Your task to perform on an android device: Open wifi settings Image 0: 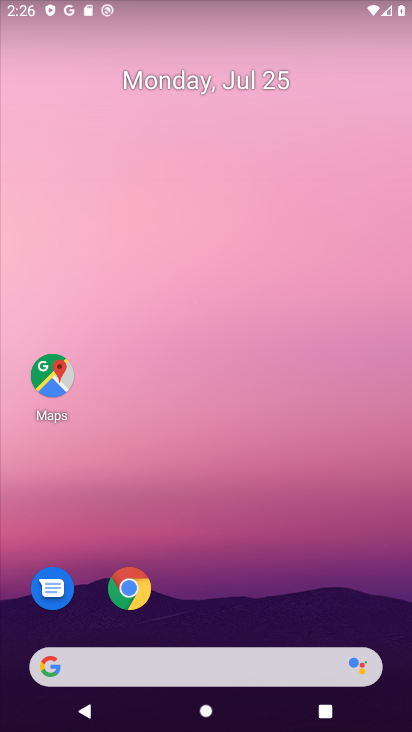
Step 0: press home button
Your task to perform on an android device: Open wifi settings Image 1: 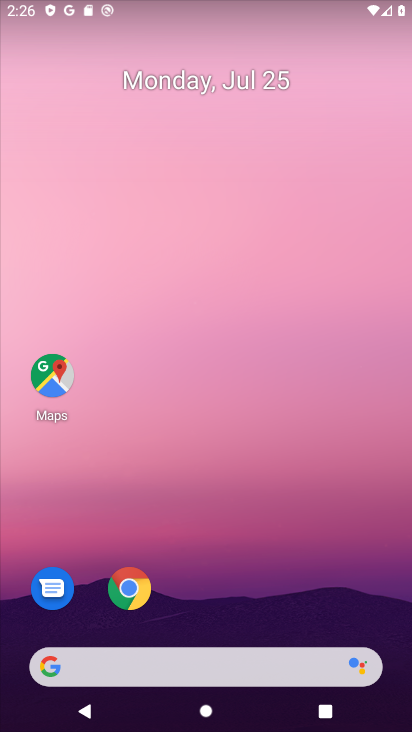
Step 1: drag from (207, 624) to (207, 21)
Your task to perform on an android device: Open wifi settings Image 2: 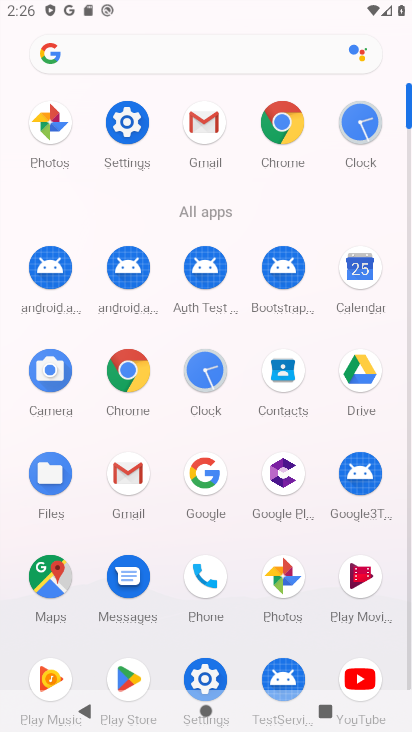
Step 2: click (123, 113)
Your task to perform on an android device: Open wifi settings Image 3: 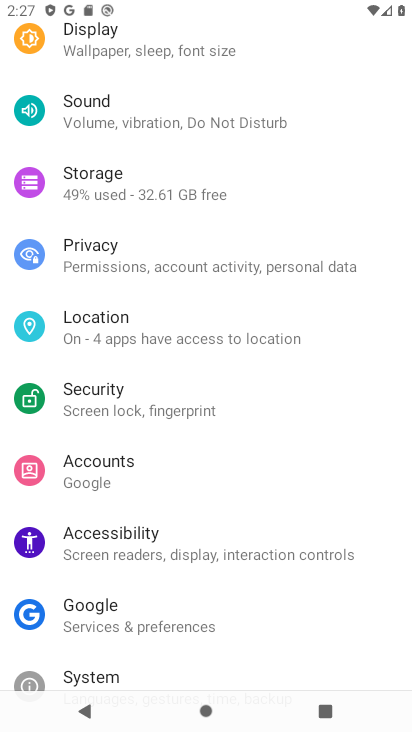
Step 3: drag from (121, 84) to (154, 675)
Your task to perform on an android device: Open wifi settings Image 4: 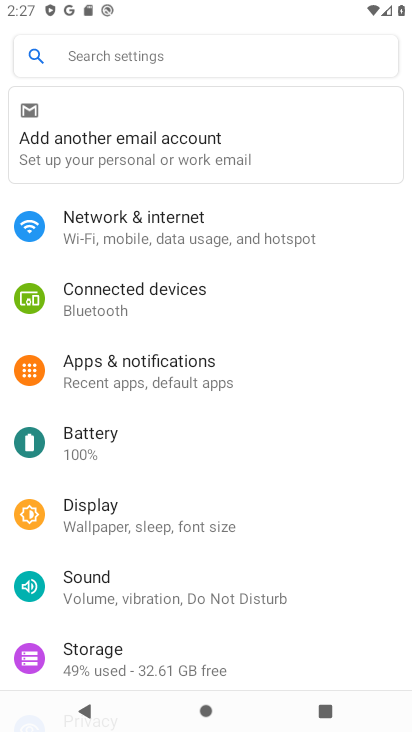
Step 4: click (182, 224)
Your task to perform on an android device: Open wifi settings Image 5: 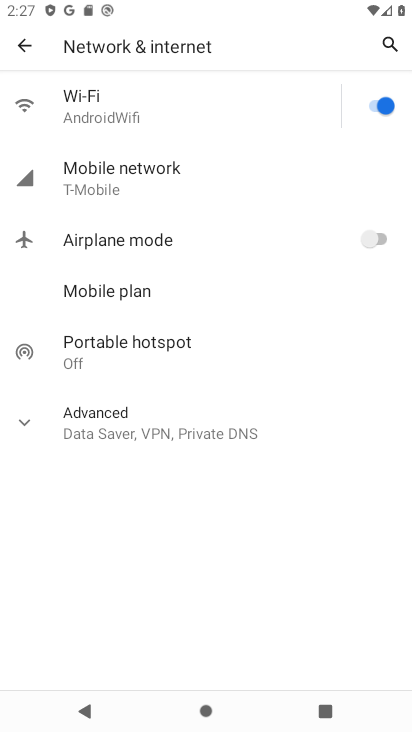
Step 5: click (148, 107)
Your task to perform on an android device: Open wifi settings Image 6: 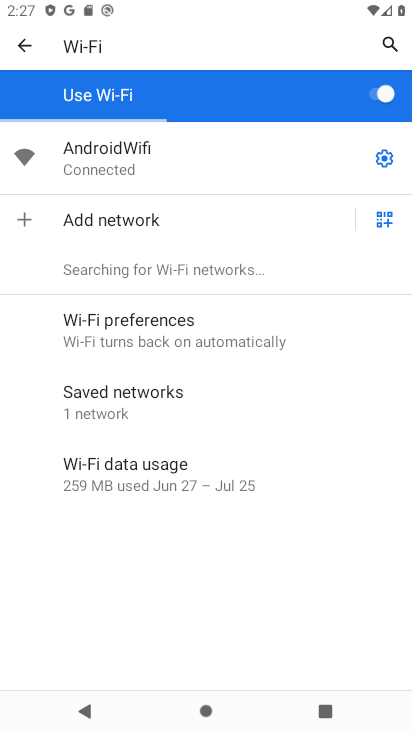
Step 6: task complete